Your task to perform on an android device: What's the weather? Image 0: 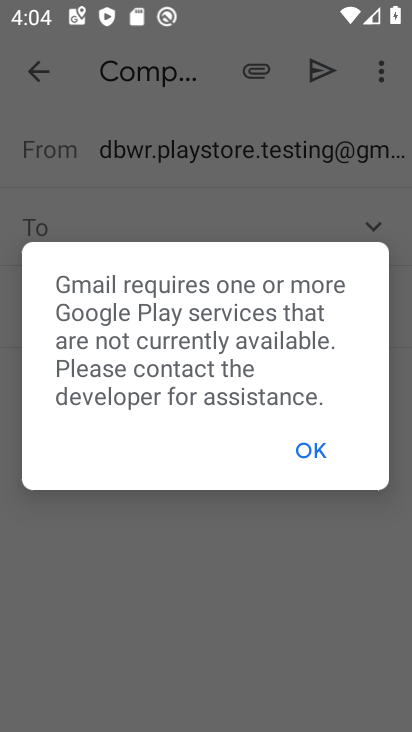
Step 0: press home button
Your task to perform on an android device: What's the weather? Image 1: 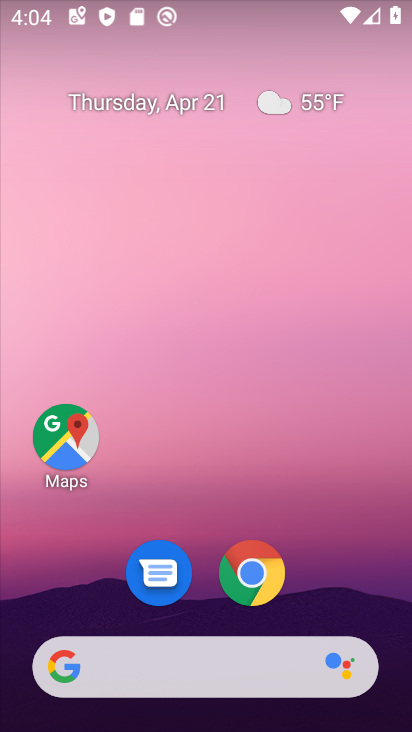
Step 1: click (306, 98)
Your task to perform on an android device: What's the weather? Image 2: 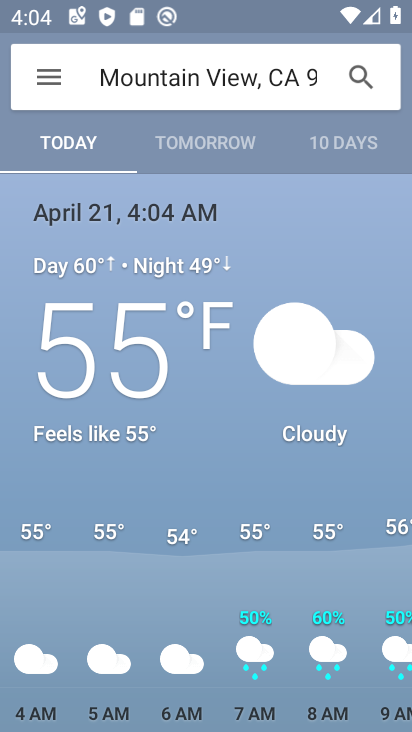
Step 2: task complete